Your task to perform on an android device: Open Wikipedia Image 0: 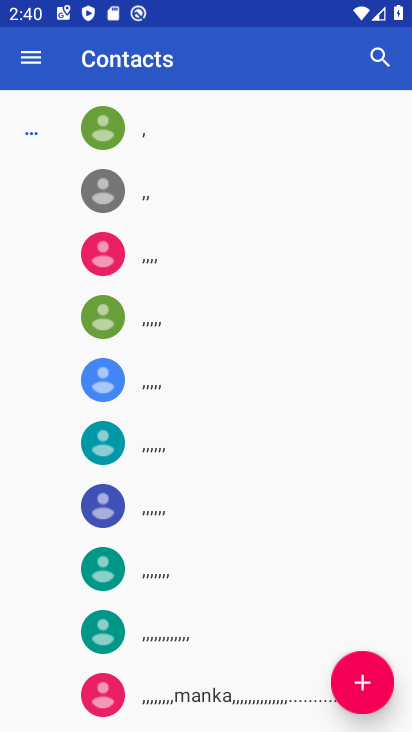
Step 0: press home button
Your task to perform on an android device: Open Wikipedia Image 1: 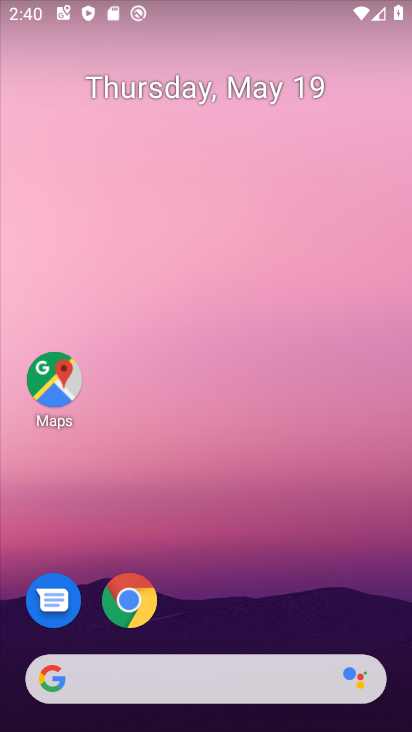
Step 1: click (123, 597)
Your task to perform on an android device: Open Wikipedia Image 2: 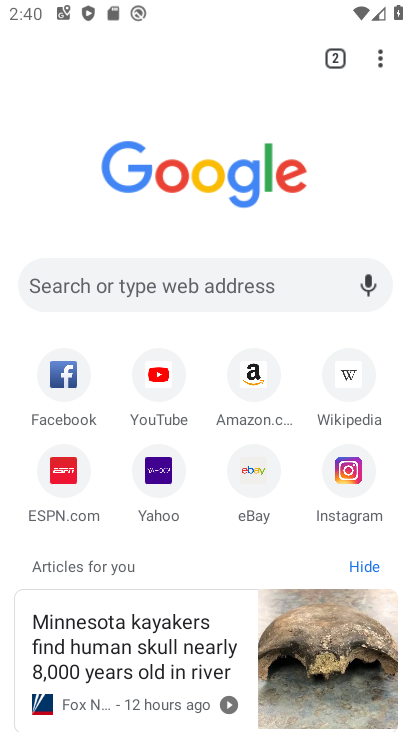
Step 2: click (246, 290)
Your task to perform on an android device: Open Wikipedia Image 3: 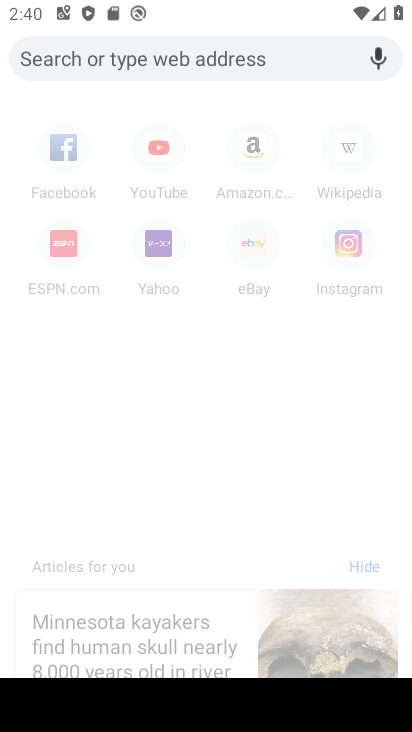
Step 3: type "Wikipedia"
Your task to perform on an android device: Open Wikipedia Image 4: 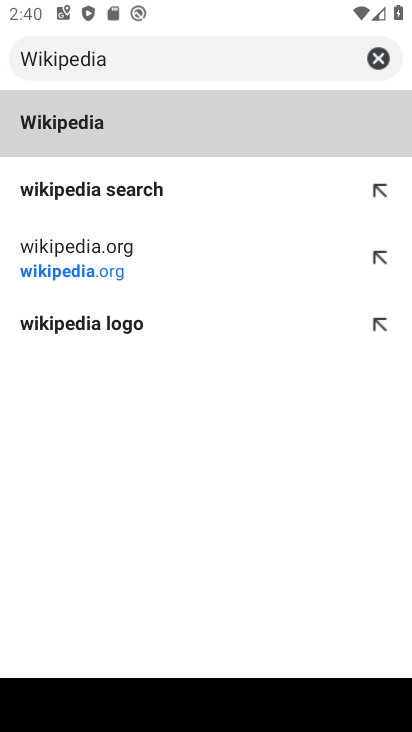
Step 4: click (74, 109)
Your task to perform on an android device: Open Wikipedia Image 5: 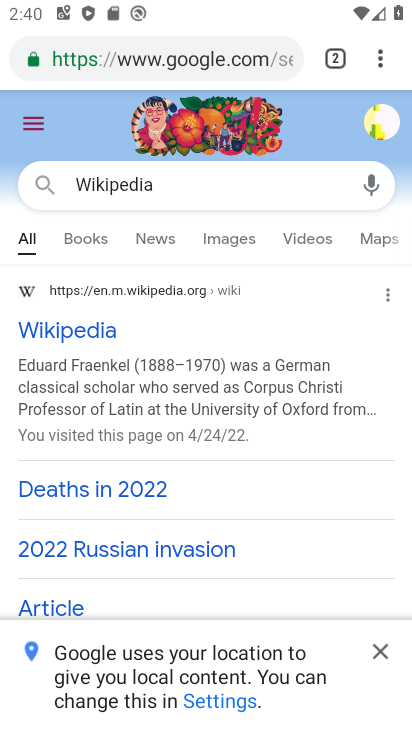
Step 5: task complete